Your task to perform on an android device: Go to Amazon Image 0: 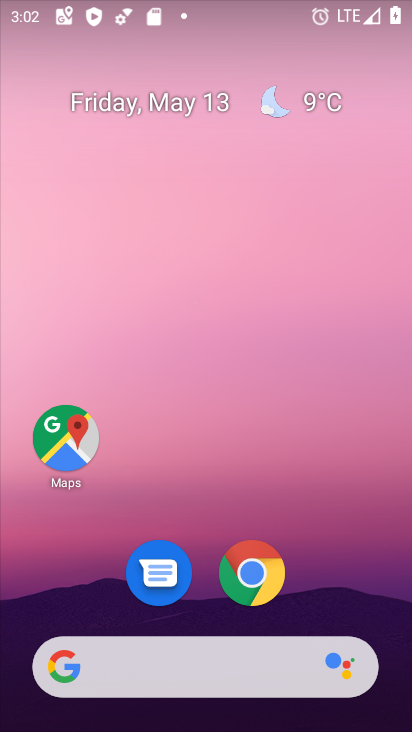
Step 0: click (253, 569)
Your task to perform on an android device: Go to Amazon Image 1: 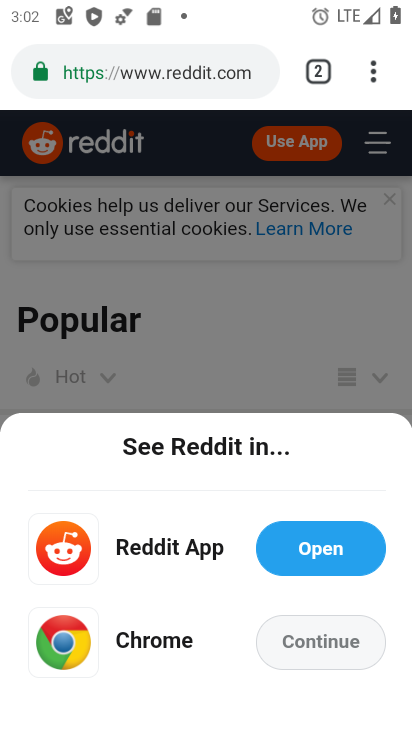
Step 1: click (242, 75)
Your task to perform on an android device: Go to Amazon Image 2: 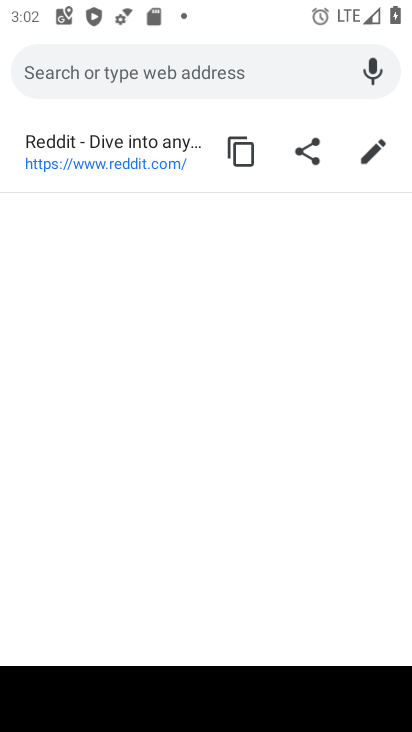
Step 2: click (214, 65)
Your task to perform on an android device: Go to Amazon Image 3: 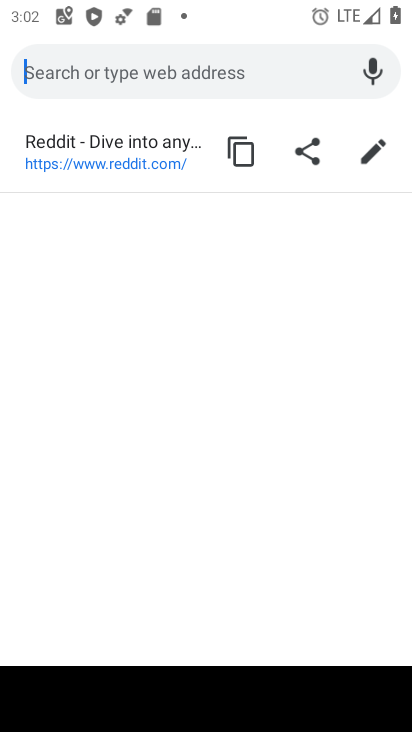
Step 3: type "Amazon"
Your task to perform on an android device: Go to Amazon Image 4: 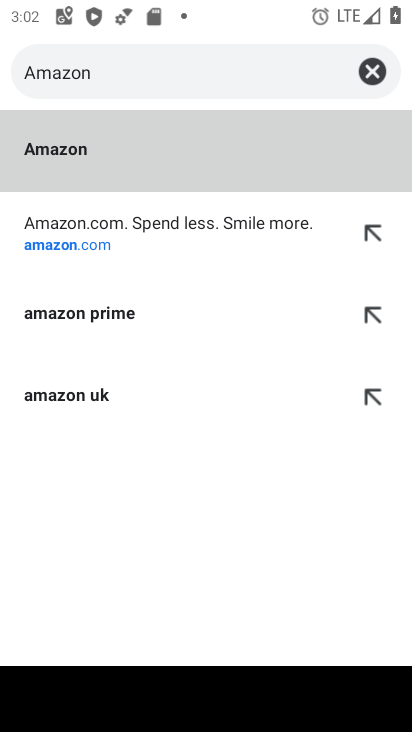
Step 4: click (80, 151)
Your task to perform on an android device: Go to Amazon Image 5: 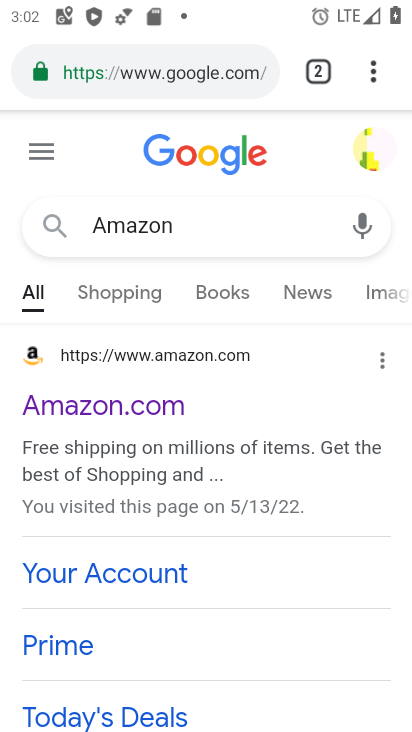
Step 5: click (77, 409)
Your task to perform on an android device: Go to Amazon Image 6: 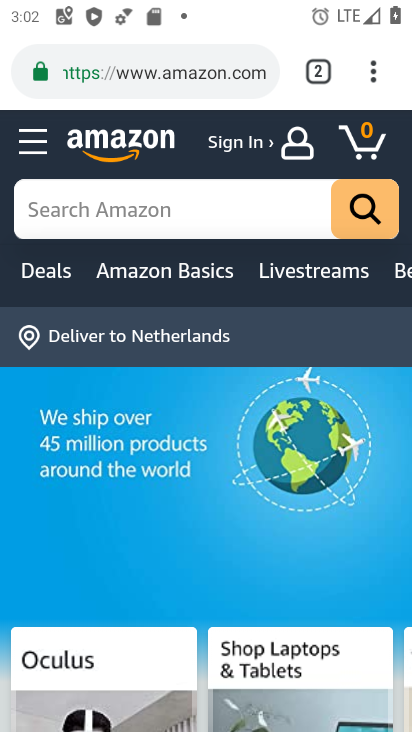
Step 6: task complete